Your task to perform on an android device: Open Maps and search for coffee Image 0: 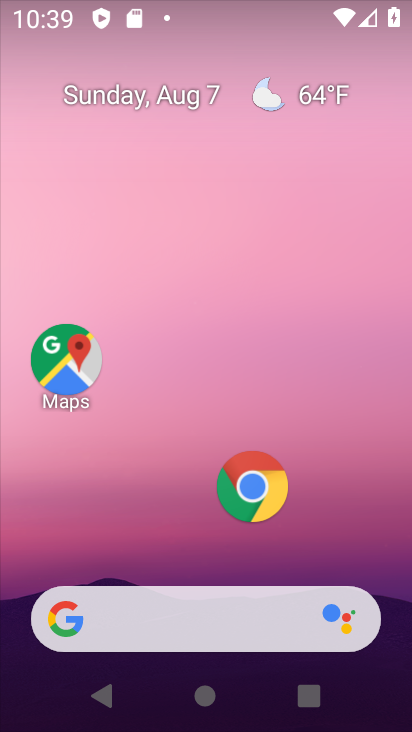
Step 0: click (64, 364)
Your task to perform on an android device: Open Maps and search for coffee Image 1: 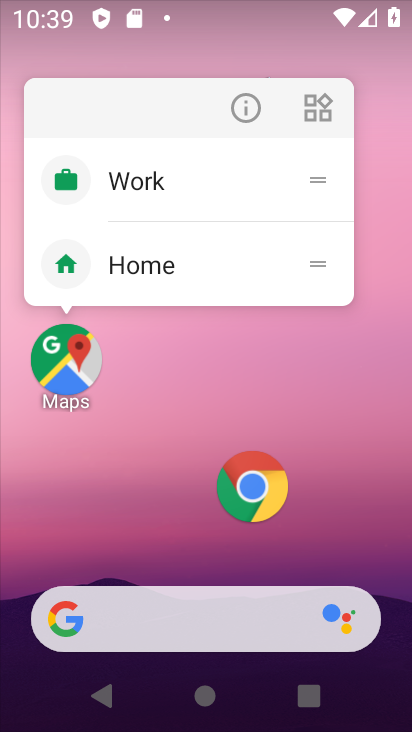
Step 1: click (64, 364)
Your task to perform on an android device: Open Maps and search for coffee Image 2: 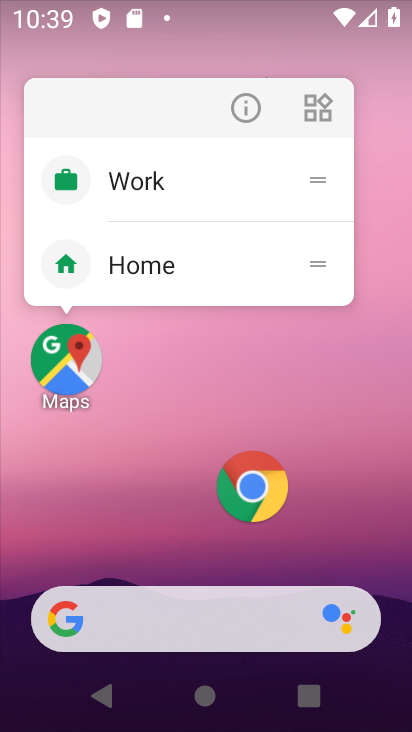
Step 2: click (64, 364)
Your task to perform on an android device: Open Maps and search for coffee Image 3: 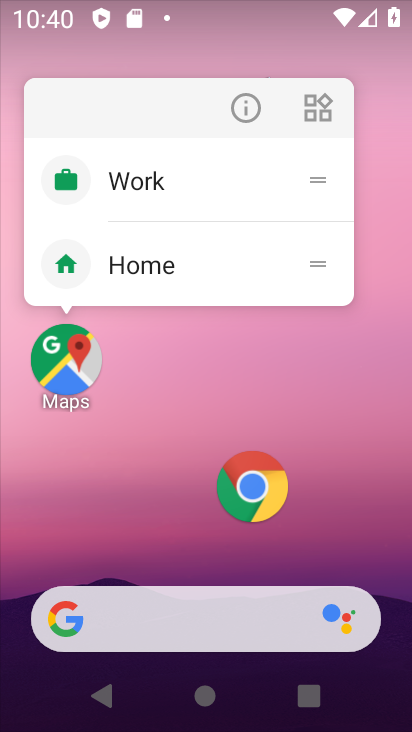
Step 3: click (68, 360)
Your task to perform on an android device: Open Maps and search for coffee Image 4: 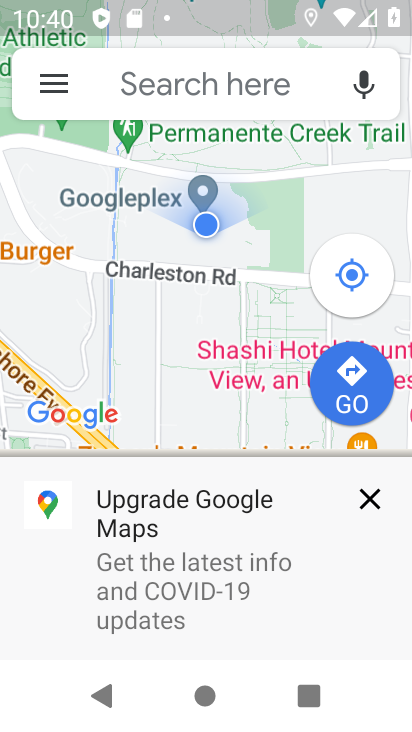
Step 4: click (235, 88)
Your task to perform on an android device: Open Maps and search for coffee Image 5: 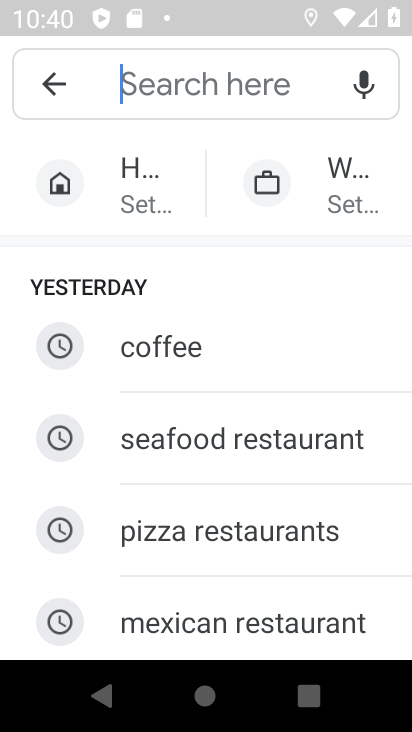
Step 5: click (162, 349)
Your task to perform on an android device: Open Maps and search for coffee Image 6: 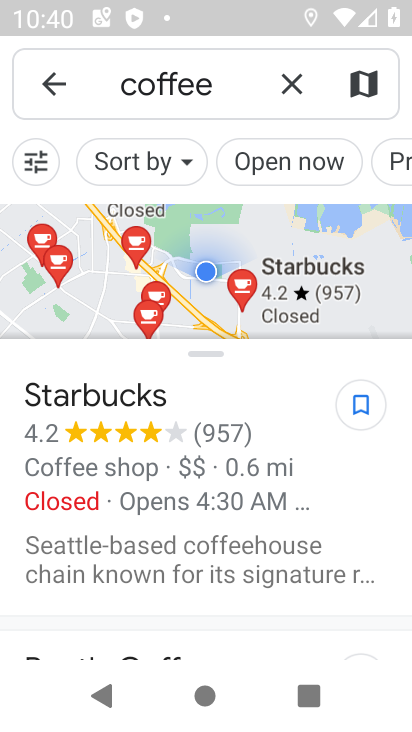
Step 6: task complete